Your task to perform on an android device: Go to network settings Image 0: 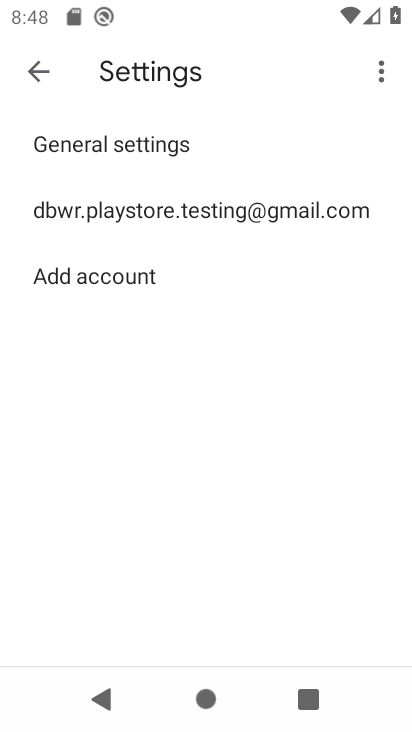
Step 0: press home button
Your task to perform on an android device: Go to network settings Image 1: 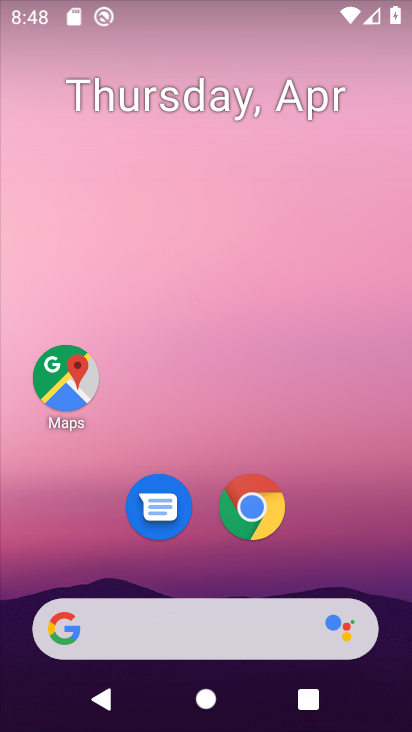
Step 1: drag from (339, 342) to (328, 244)
Your task to perform on an android device: Go to network settings Image 2: 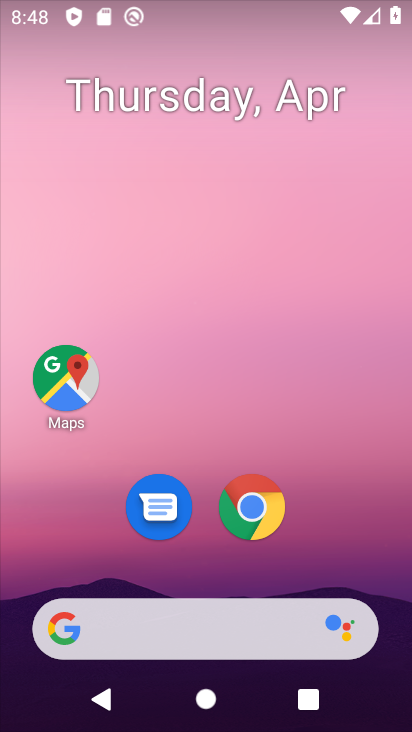
Step 2: drag from (321, 590) to (349, 181)
Your task to perform on an android device: Go to network settings Image 3: 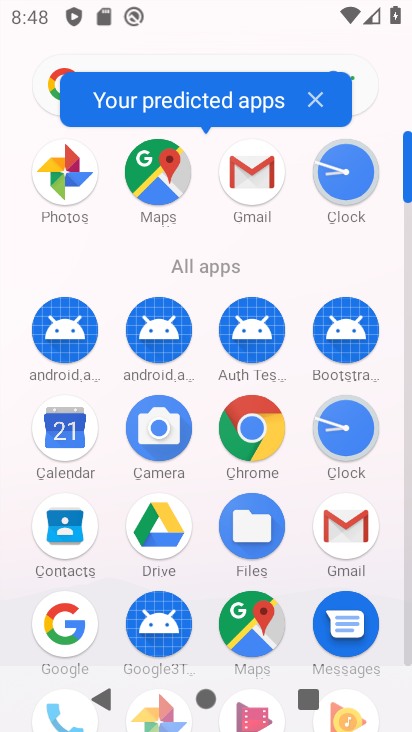
Step 3: drag from (208, 580) to (235, 135)
Your task to perform on an android device: Go to network settings Image 4: 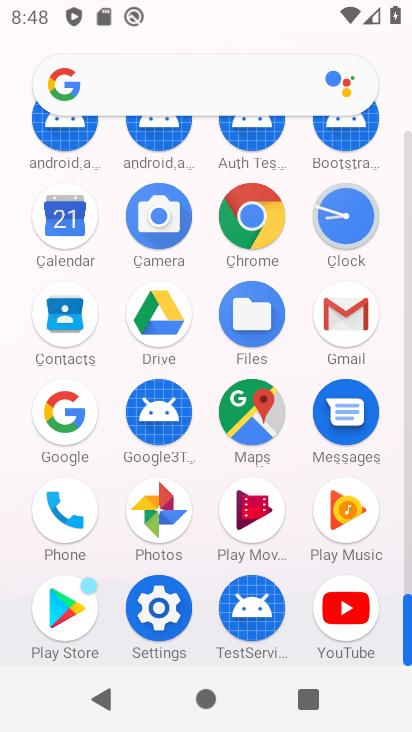
Step 4: click (151, 599)
Your task to perform on an android device: Go to network settings Image 5: 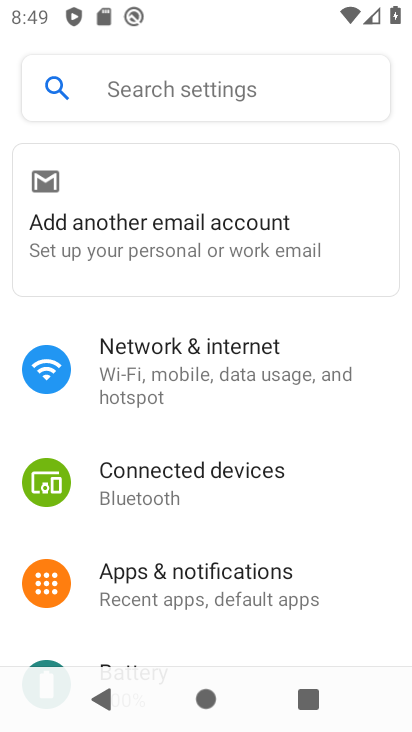
Step 5: click (204, 350)
Your task to perform on an android device: Go to network settings Image 6: 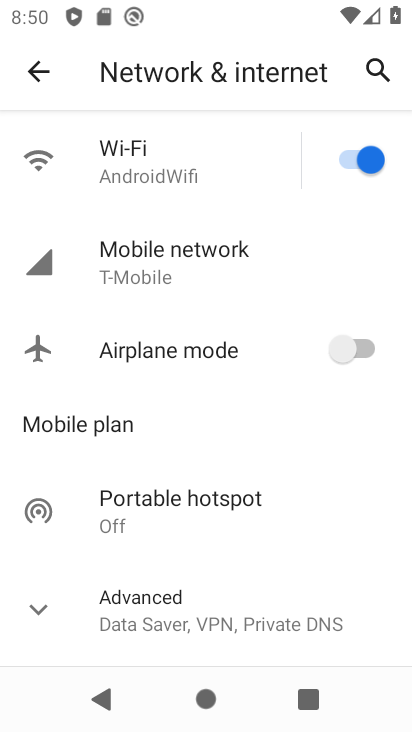
Step 6: task complete